Your task to perform on an android device: Show me popular videos on Youtube Image 0: 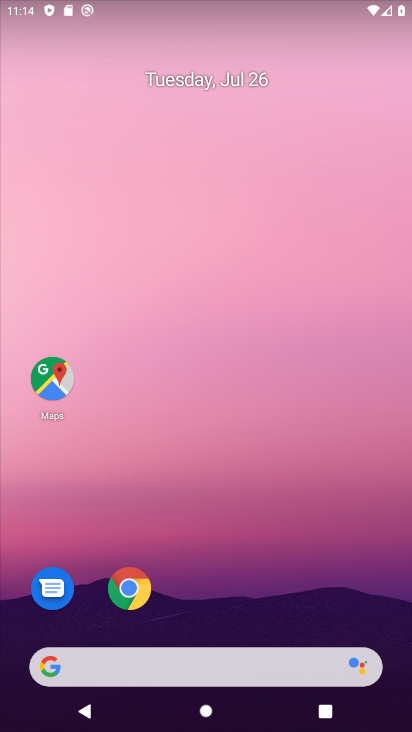
Step 0: drag from (36, 687) to (341, 229)
Your task to perform on an android device: Show me popular videos on Youtube Image 1: 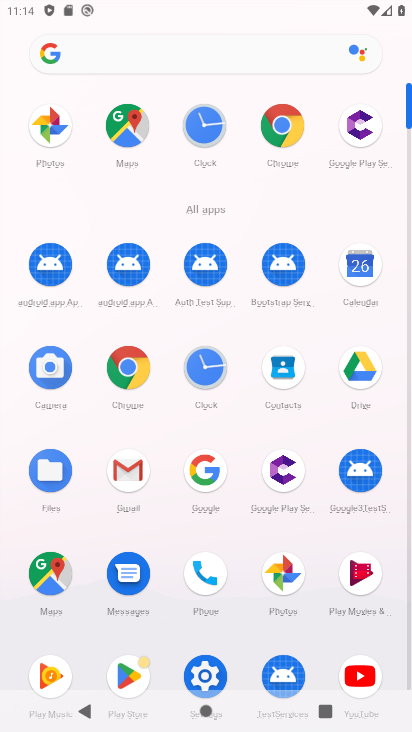
Step 1: click (360, 684)
Your task to perform on an android device: Show me popular videos on Youtube Image 2: 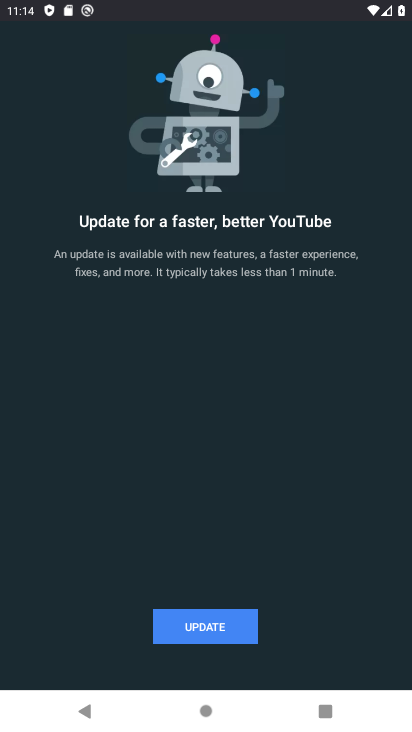
Step 2: press home button
Your task to perform on an android device: Show me popular videos on Youtube Image 3: 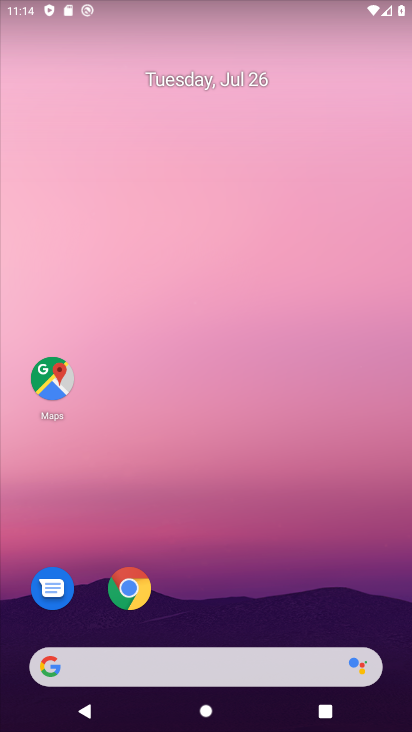
Step 3: drag from (146, 408) to (325, 22)
Your task to perform on an android device: Show me popular videos on Youtube Image 4: 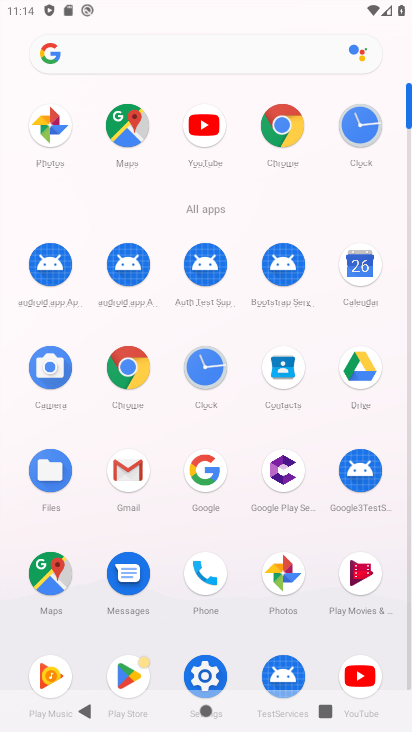
Step 4: click (360, 678)
Your task to perform on an android device: Show me popular videos on Youtube Image 5: 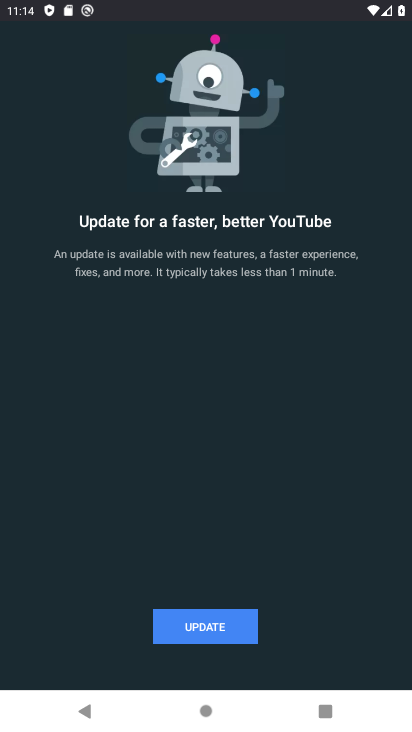
Step 5: click (175, 619)
Your task to perform on an android device: Show me popular videos on Youtube Image 6: 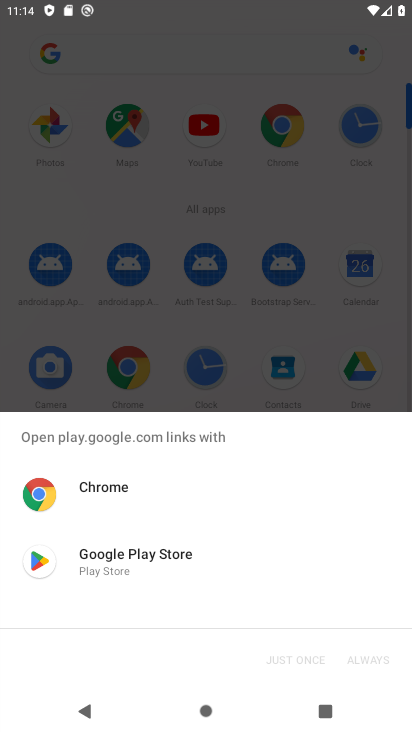
Step 6: click (124, 561)
Your task to perform on an android device: Show me popular videos on Youtube Image 7: 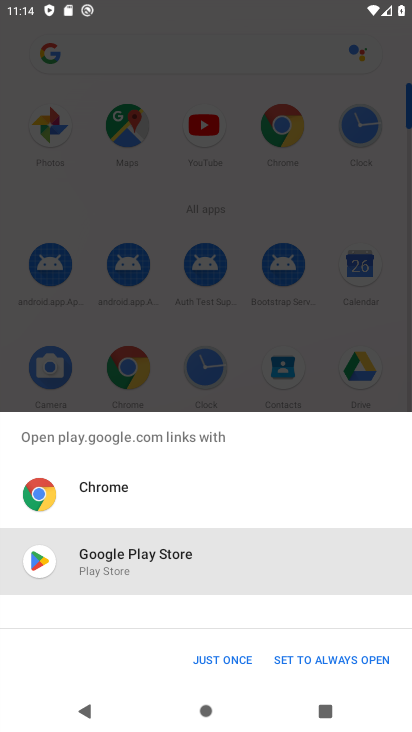
Step 7: click (237, 657)
Your task to perform on an android device: Show me popular videos on Youtube Image 8: 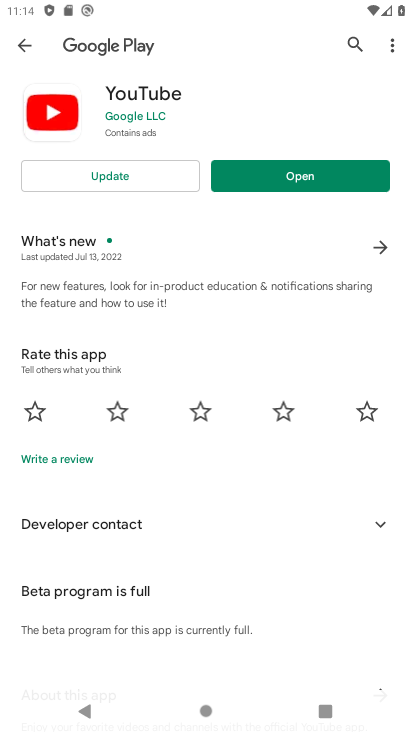
Step 8: click (251, 170)
Your task to perform on an android device: Show me popular videos on Youtube Image 9: 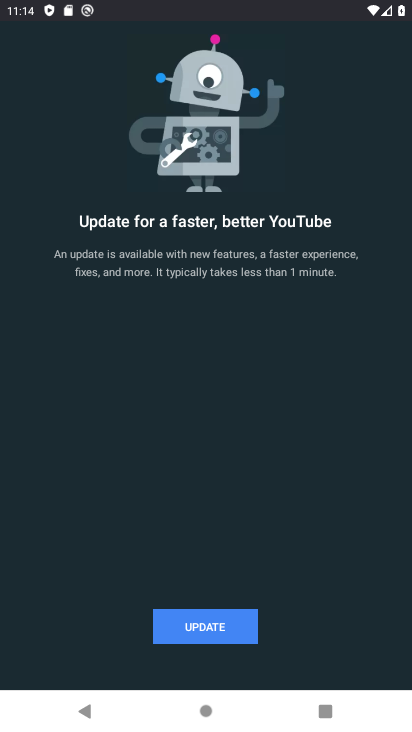
Step 9: task complete